Your task to perform on an android device: Check the weather Image 0: 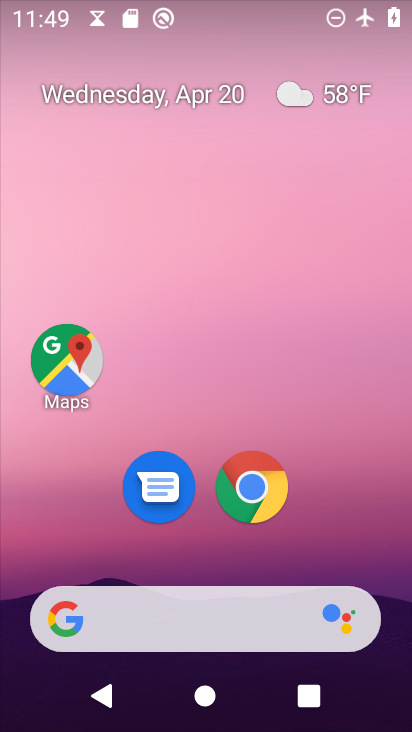
Step 0: drag from (349, 432) to (214, 0)
Your task to perform on an android device: Check the weather Image 1: 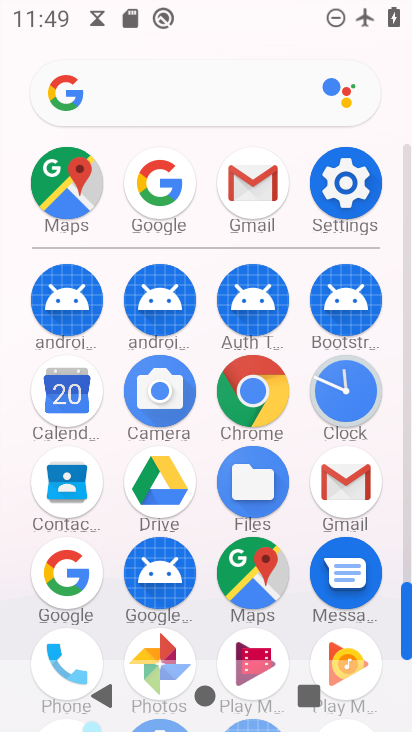
Step 1: drag from (10, 482) to (12, 246)
Your task to perform on an android device: Check the weather Image 2: 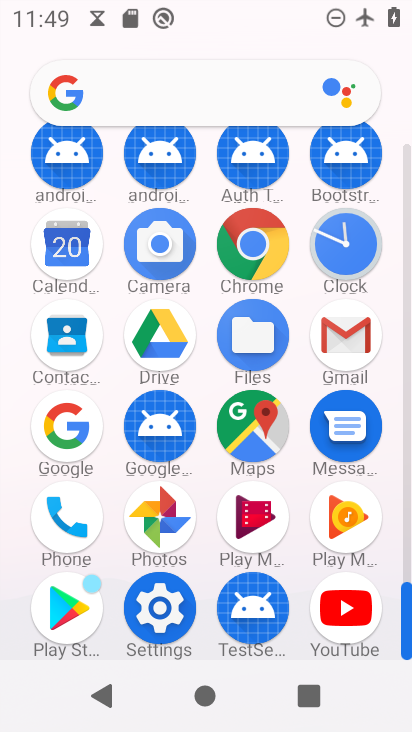
Step 2: drag from (0, 389) to (5, 320)
Your task to perform on an android device: Check the weather Image 3: 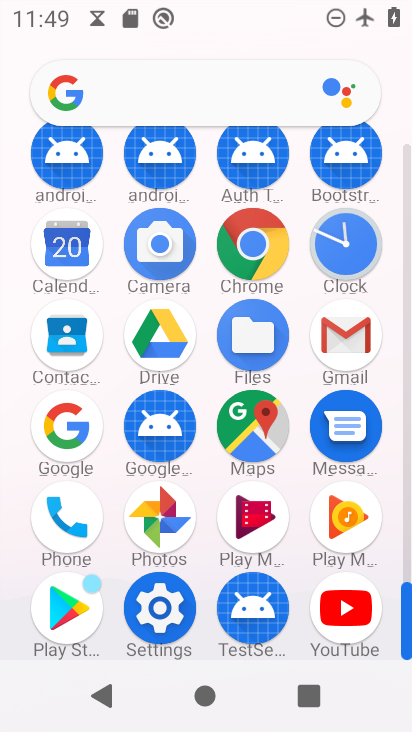
Step 3: click (147, 93)
Your task to perform on an android device: Check the weather Image 4: 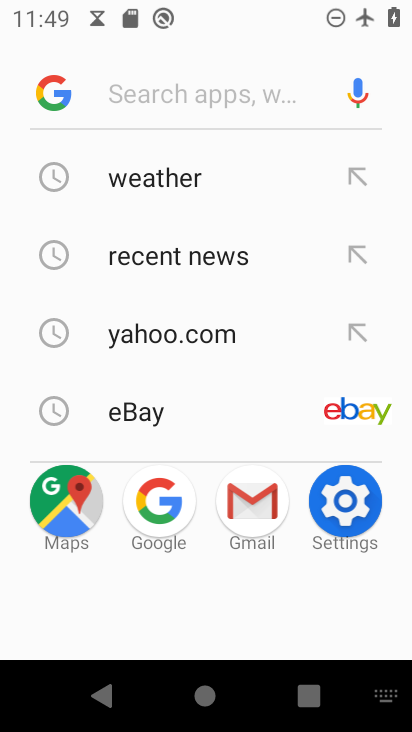
Step 4: click (141, 165)
Your task to perform on an android device: Check the weather Image 5: 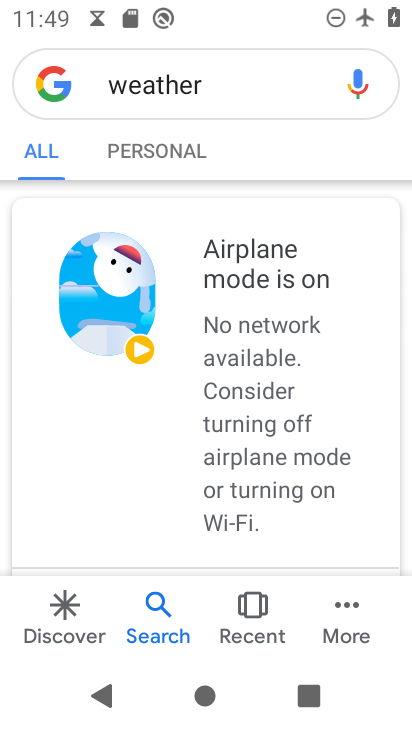
Step 5: click (57, 620)
Your task to perform on an android device: Check the weather Image 6: 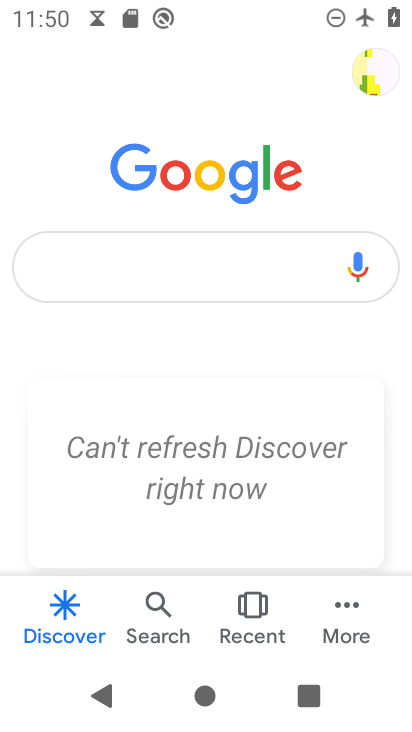
Step 6: task complete